Your task to perform on an android device: toggle sleep mode Image 0: 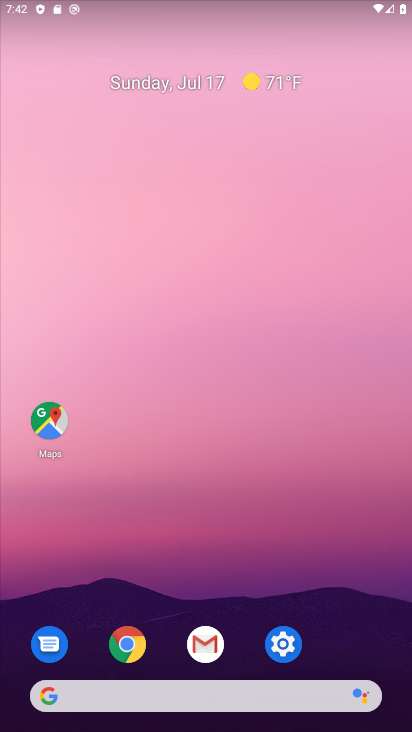
Step 0: click (275, 645)
Your task to perform on an android device: toggle sleep mode Image 1: 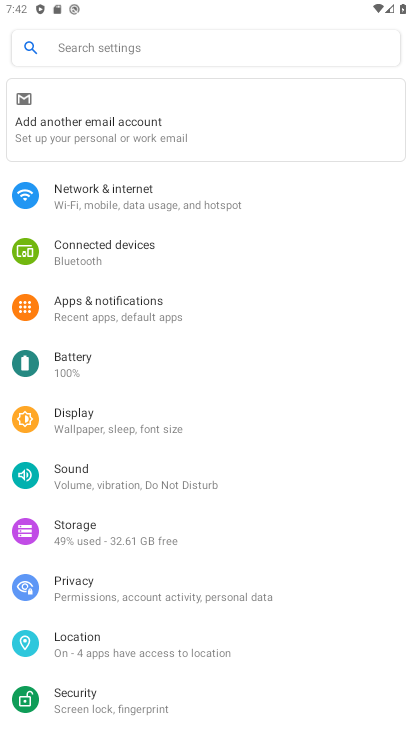
Step 1: click (124, 49)
Your task to perform on an android device: toggle sleep mode Image 2: 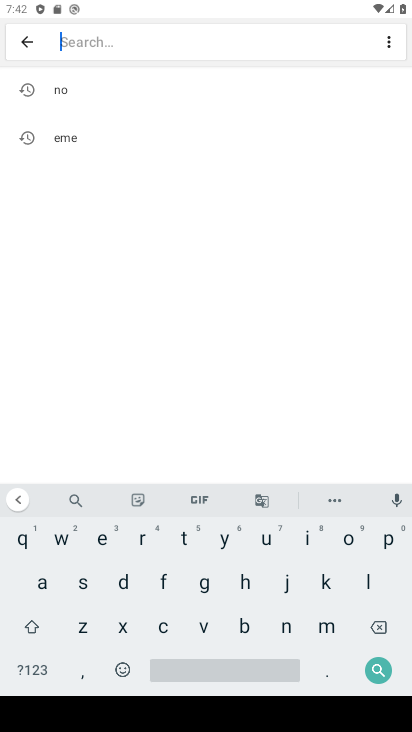
Step 2: click (83, 573)
Your task to perform on an android device: toggle sleep mode Image 3: 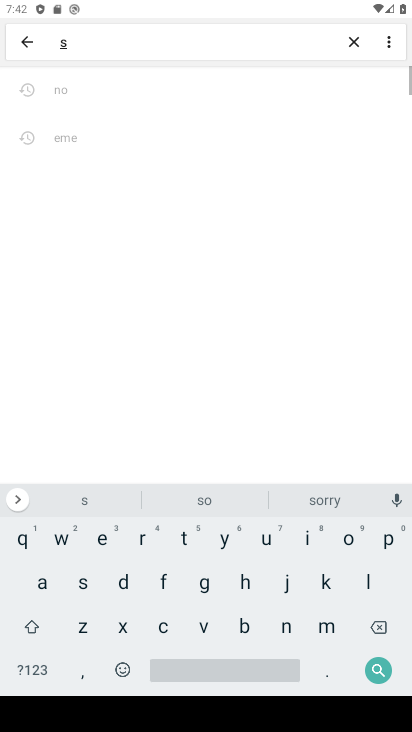
Step 3: click (366, 574)
Your task to perform on an android device: toggle sleep mode Image 4: 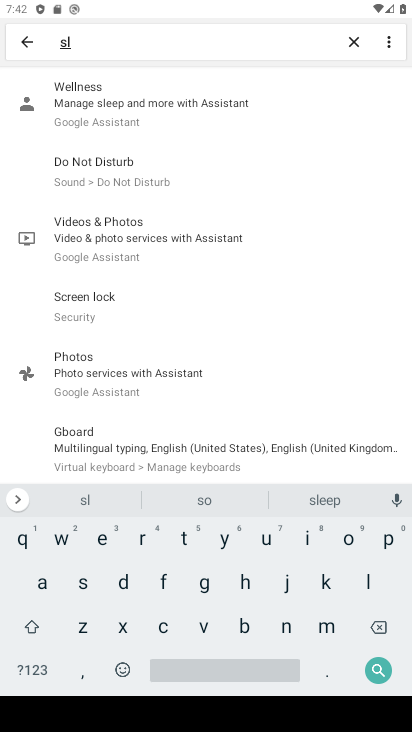
Step 4: click (99, 538)
Your task to perform on an android device: toggle sleep mode Image 5: 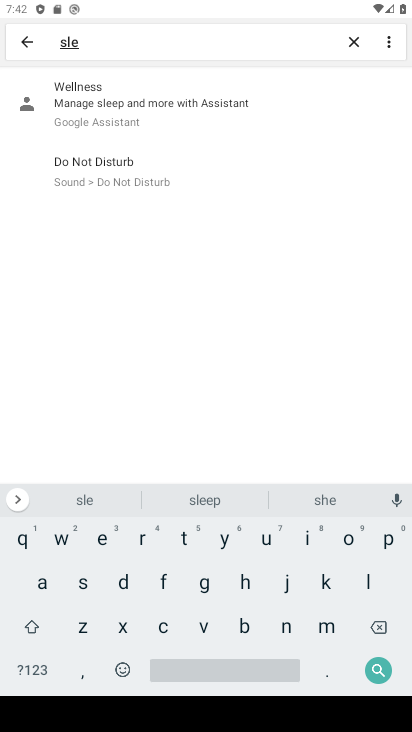
Step 5: click (99, 538)
Your task to perform on an android device: toggle sleep mode Image 6: 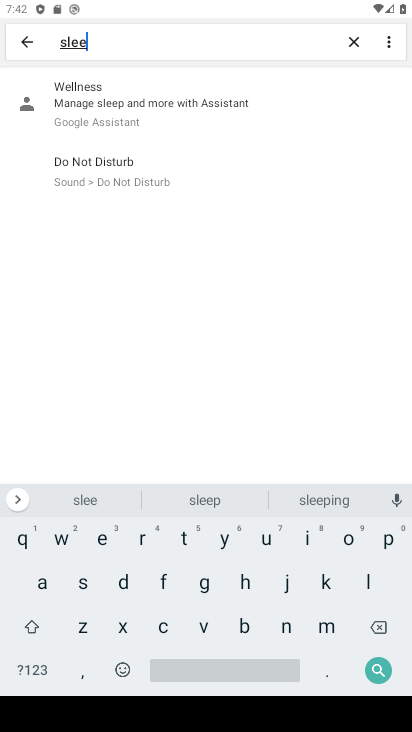
Step 6: click (88, 161)
Your task to perform on an android device: toggle sleep mode Image 7: 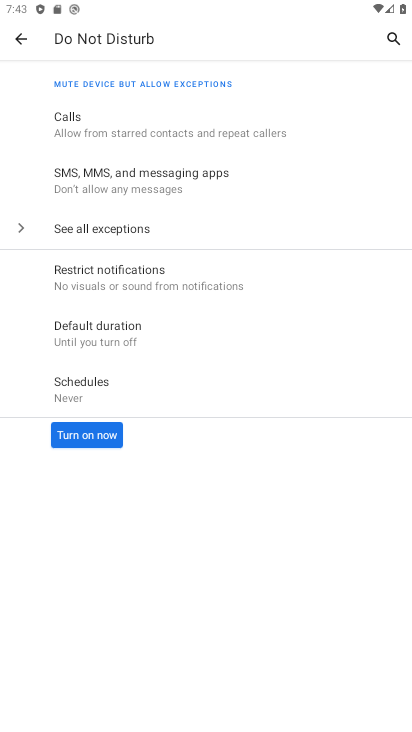
Step 7: task complete